Your task to perform on an android device: Go to location settings Image 0: 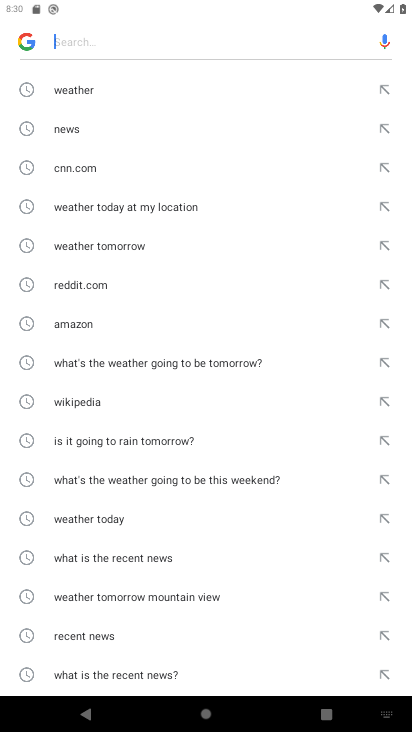
Step 0: press home button
Your task to perform on an android device: Go to location settings Image 1: 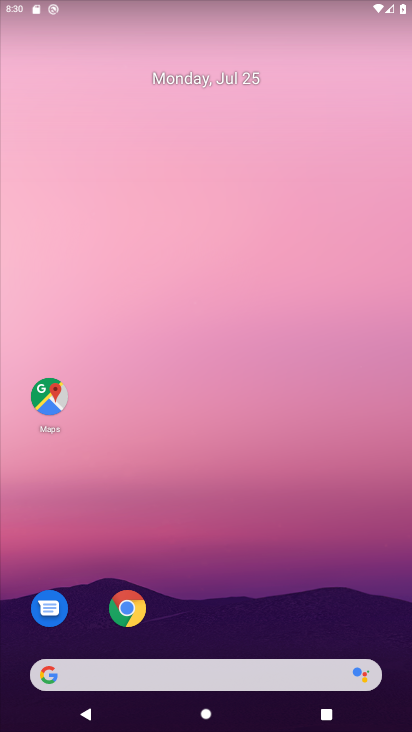
Step 1: drag from (244, 648) to (307, 22)
Your task to perform on an android device: Go to location settings Image 2: 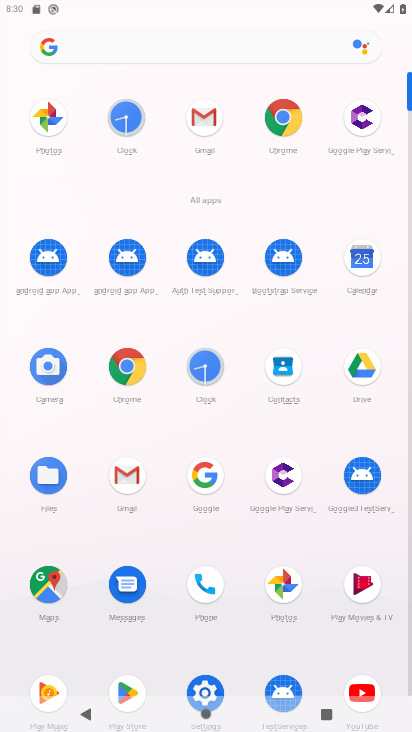
Step 2: click (205, 681)
Your task to perform on an android device: Go to location settings Image 3: 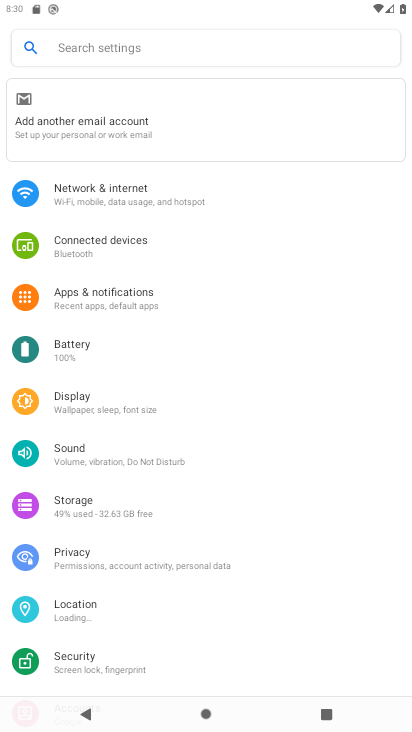
Step 3: click (72, 602)
Your task to perform on an android device: Go to location settings Image 4: 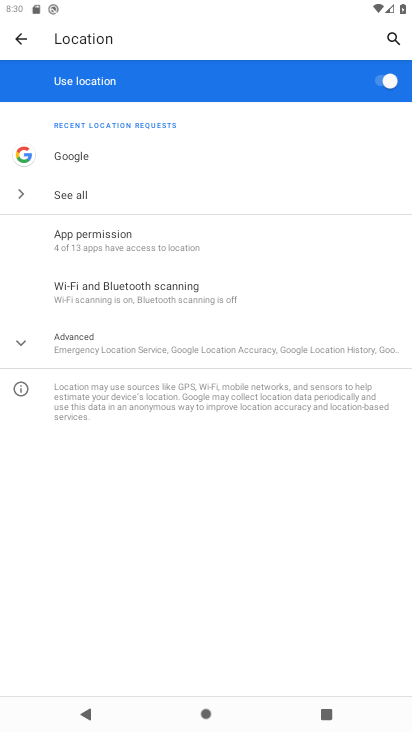
Step 4: task complete